Your task to perform on an android device: add a contact Image 0: 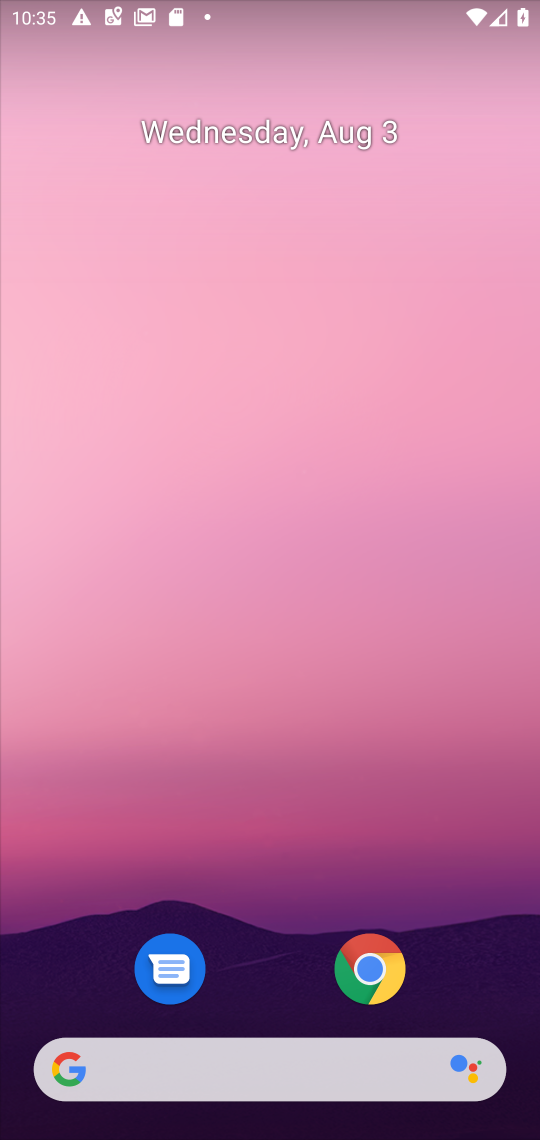
Step 0: drag from (257, 983) to (320, 6)
Your task to perform on an android device: add a contact Image 1: 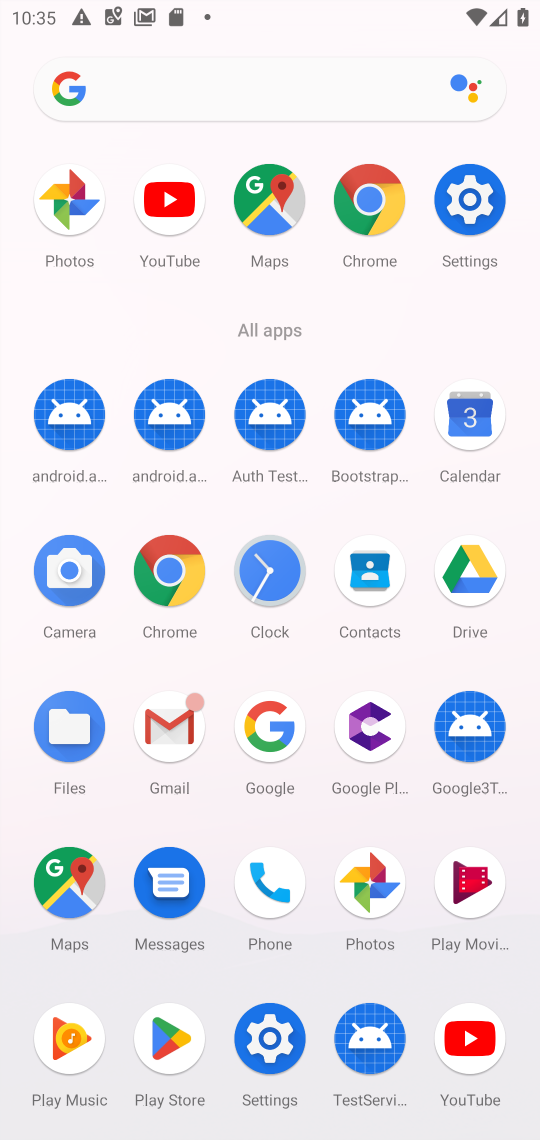
Step 1: click (237, 905)
Your task to perform on an android device: add a contact Image 2: 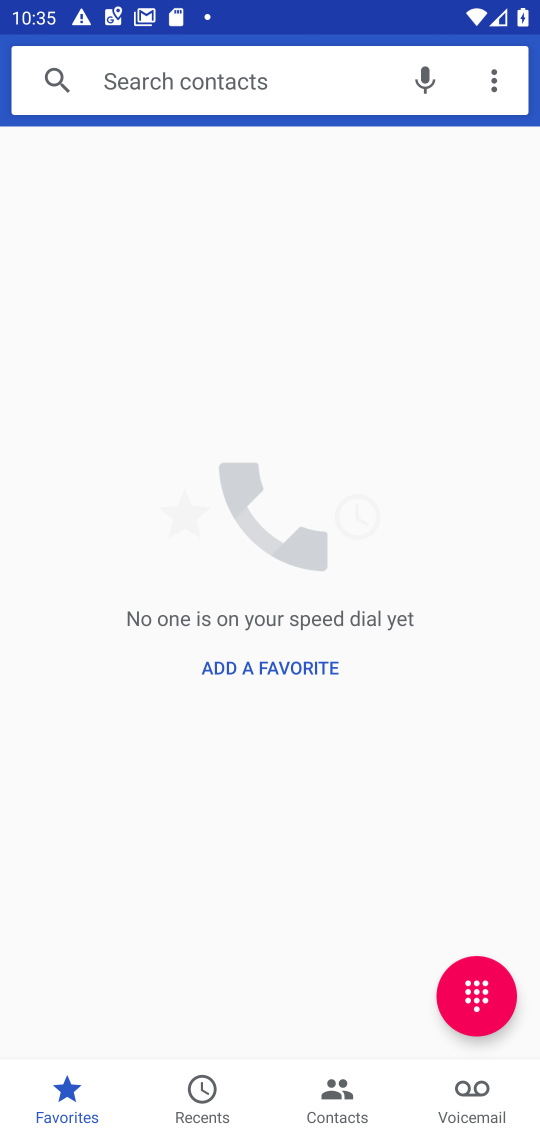
Step 2: click (318, 1098)
Your task to perform on an android device: add a contact Image 3: 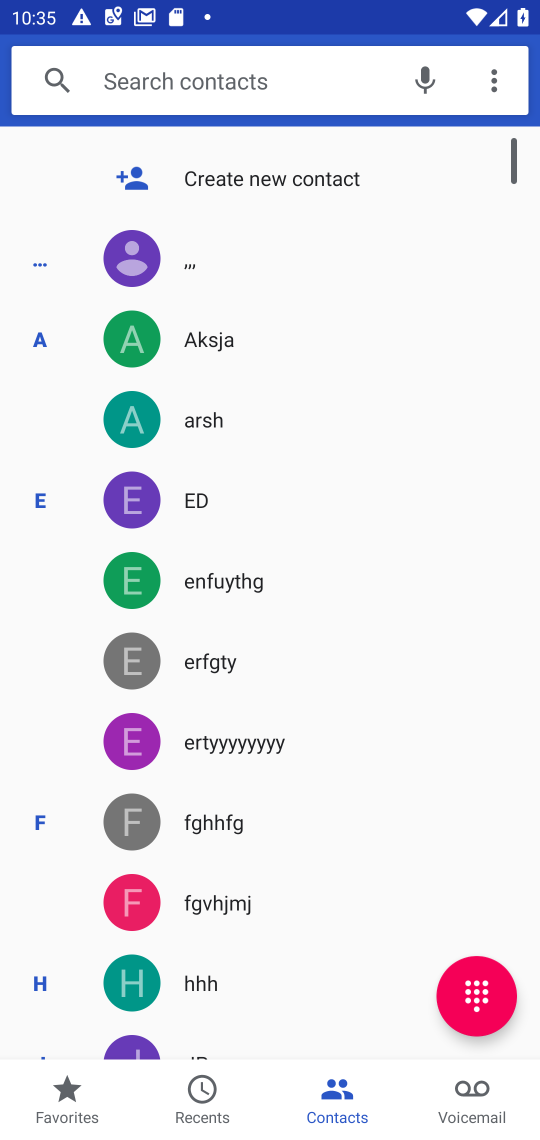
Step 3: click (169, 195)
Your task to perform on an android device: add a contact Image 4: 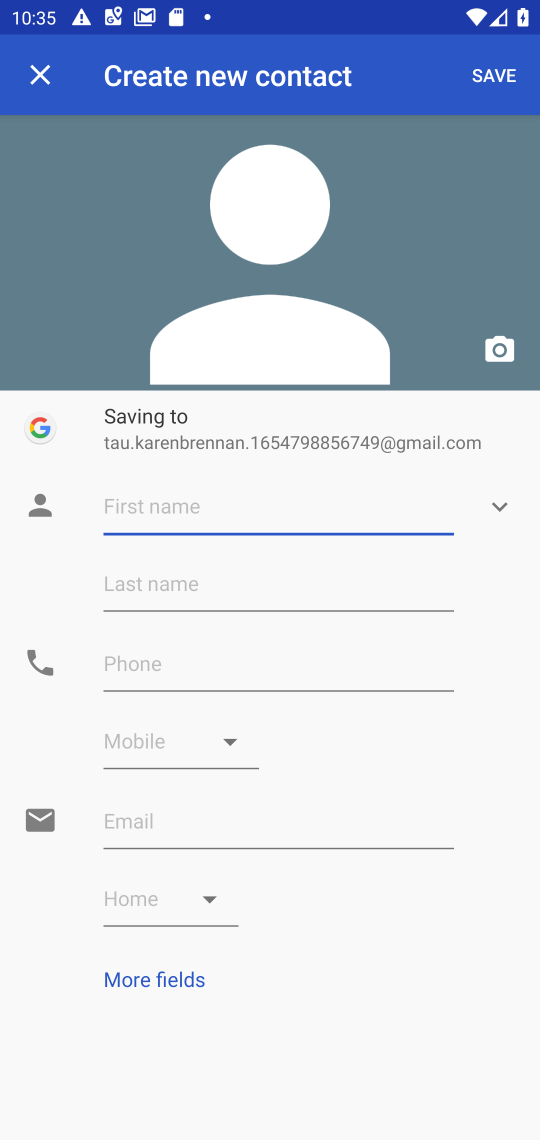
Step 4: type "kk"
Your task to perform on an android device: add a contact Image 5: 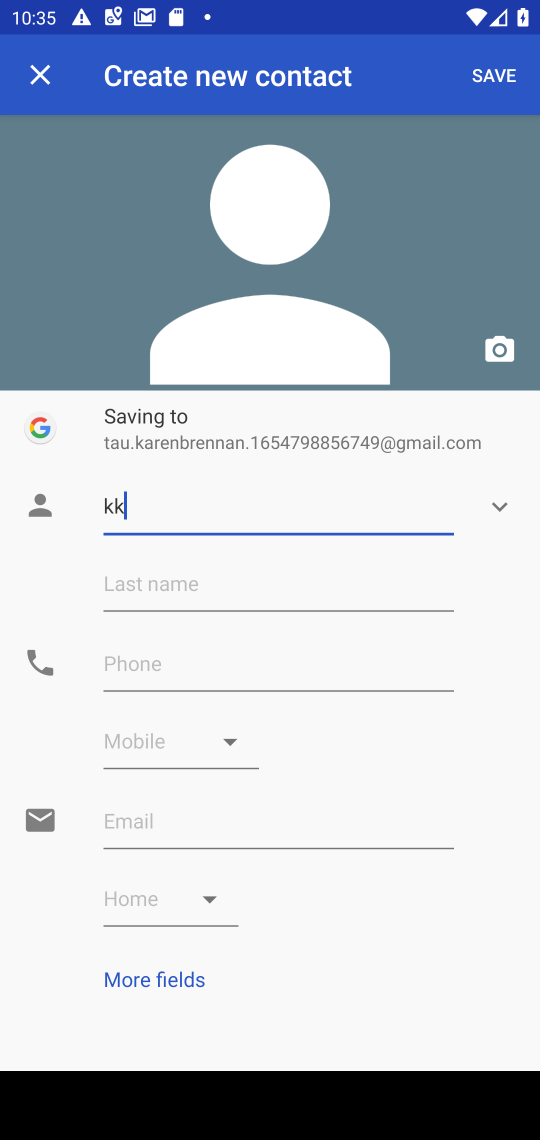
Step 5: type ""
Your task to perform on an android device: add a contact Image 6: 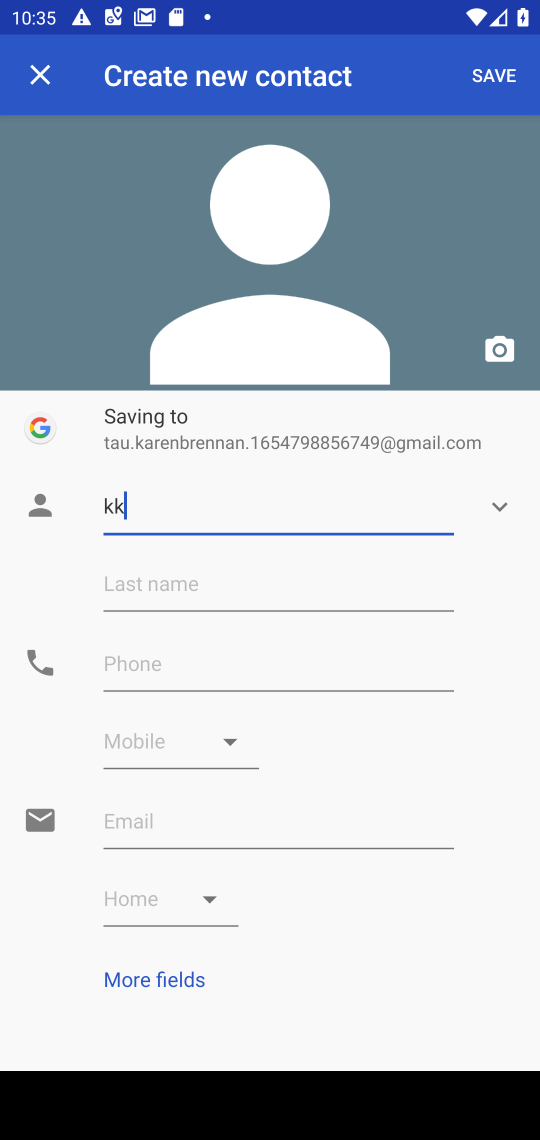
Step 6: click (103, 673)
Your task to perform on an android device: add a contact Image 7: 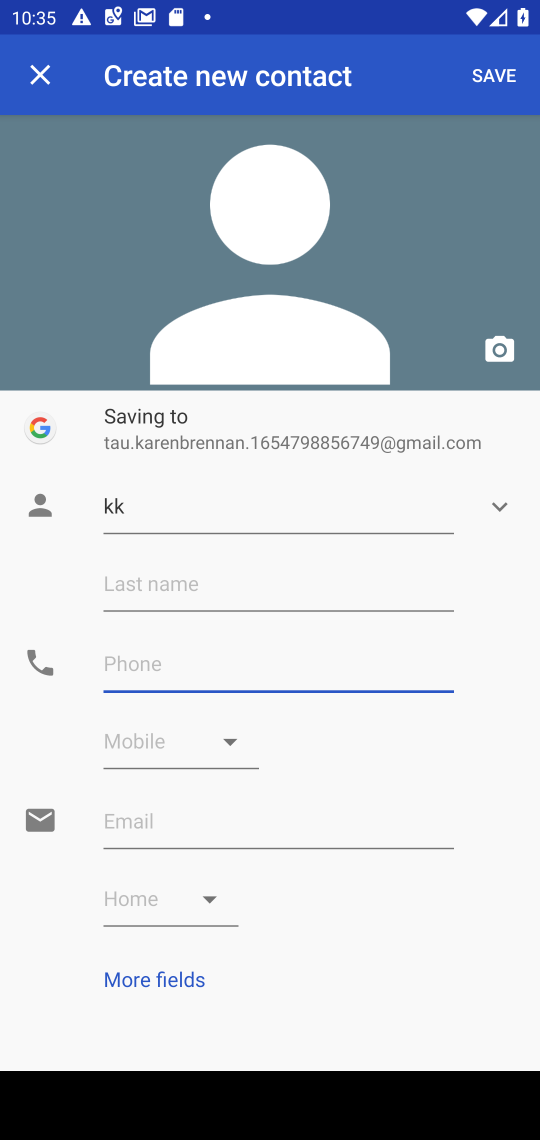
Step 7: type "00"
Your task to perform on an android device: add a contact Image 8: 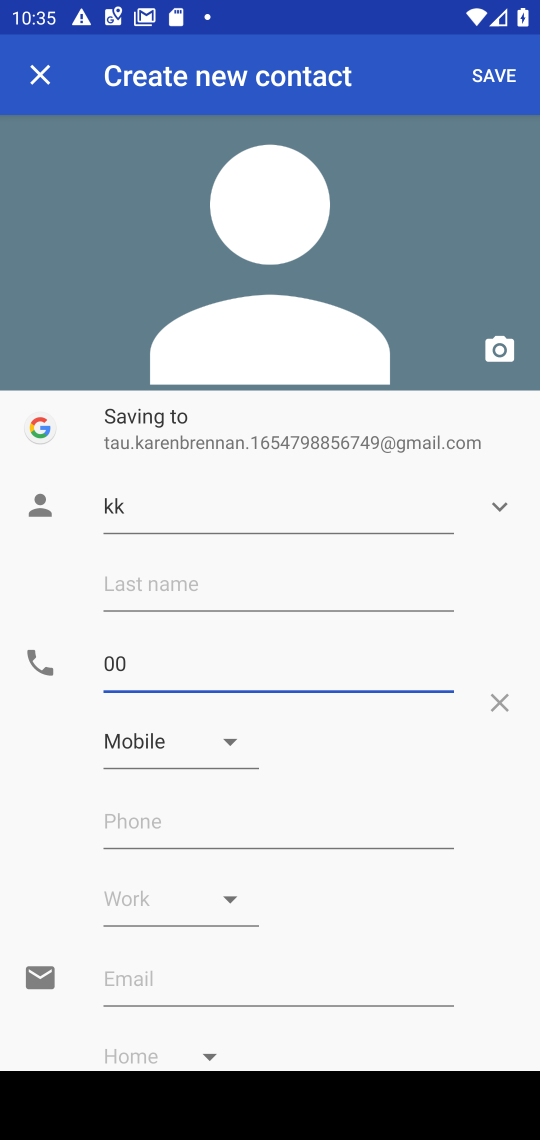
Step 8: click (496, 74)
Your task to perform on an android device: add a contact Image 9: 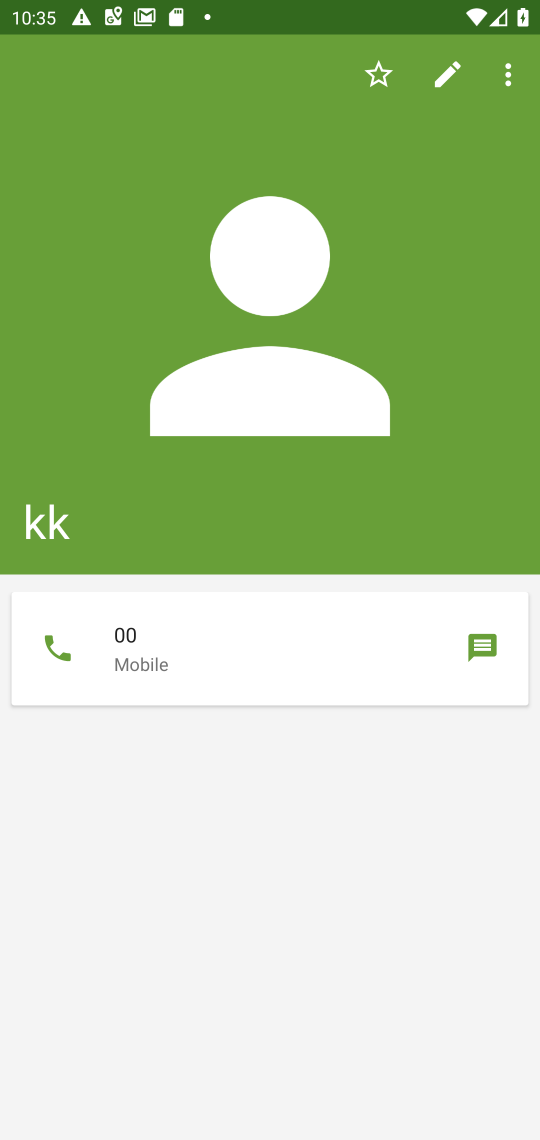
Step 9: task complete